Your task to perform on an android device: Check the weather Image 0: 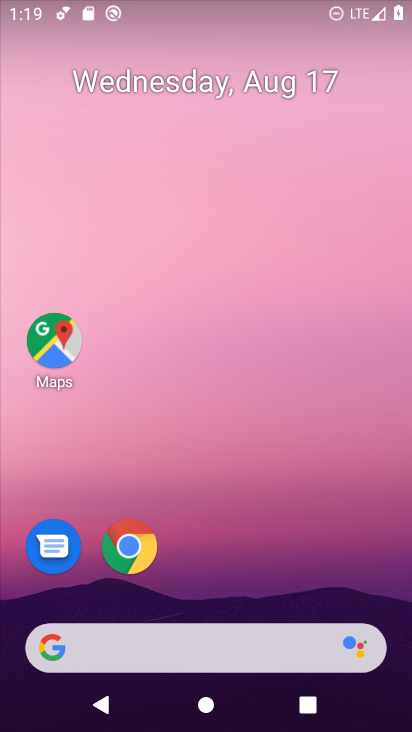
Step 0: click (173, 644)
Your task to perform on an android device: Check the weather Image 1: 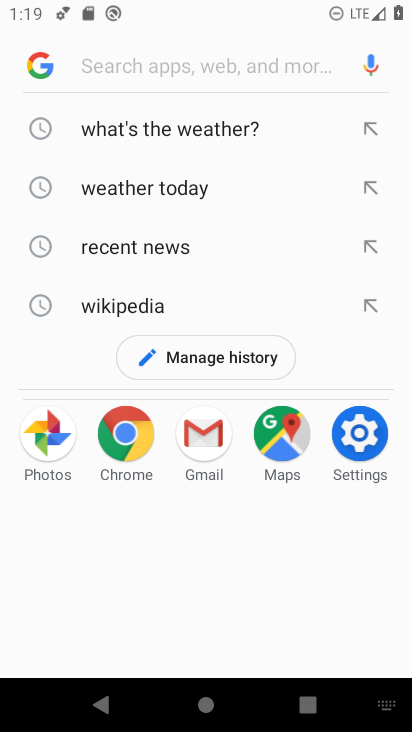
Step 1: click (106, 189)
Your task to perform on an android device: Check the weather Image 2: 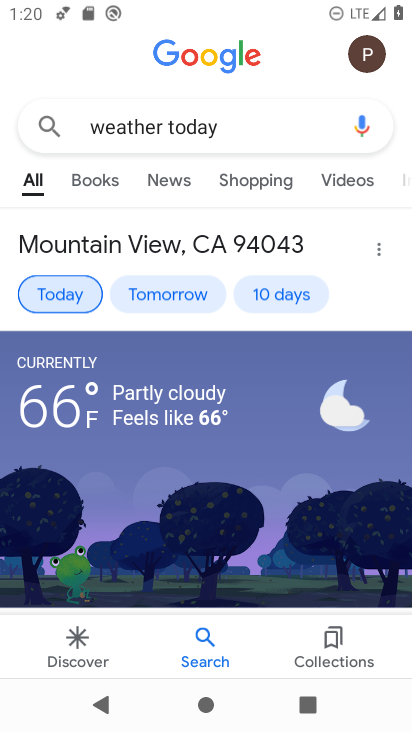
Step 2: task complete